Your task to perform on an android device: toggle javascript in the chrome app Image 0: 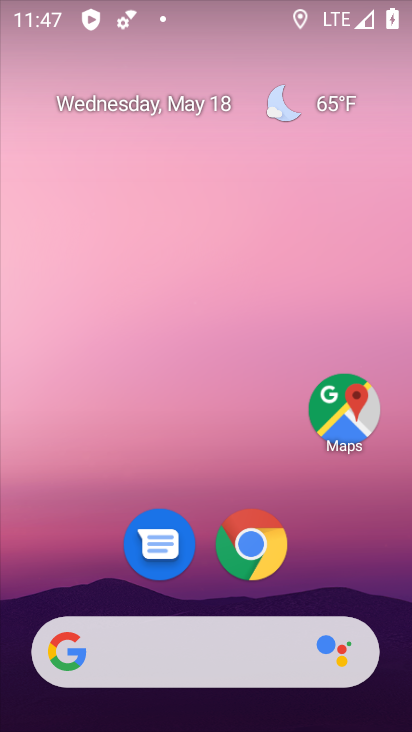
Step 0: drag from (385, 579) to (381, 265)
Your task to perform on an android device: toggle javascript in the chrome app Image 1: 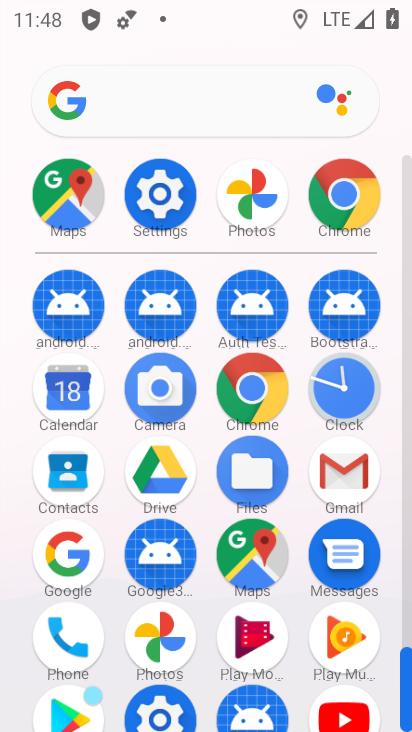
Step 1: click (273, 404)
Your task to perform on an android device: toggle javascript in the chrome app Image 2: 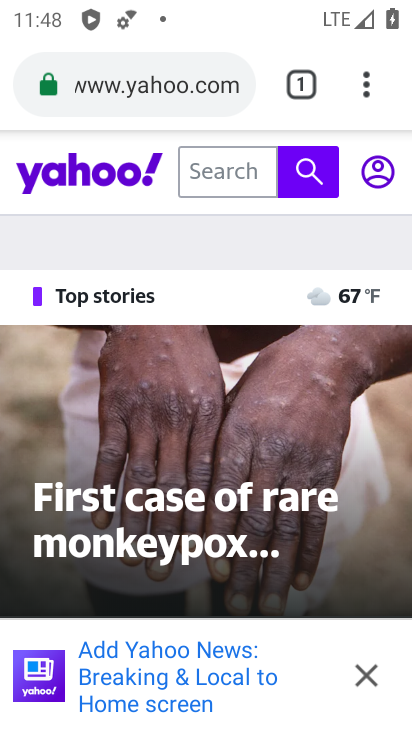
Step 2: click (366, 98)
Your task to perform on an android device: toggle javascript in the chrome app Image 3: 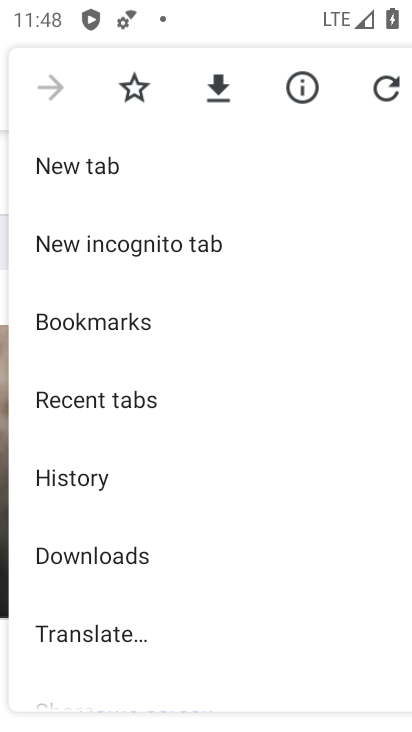
Step 3: drag from (265, 649) to (264, 563)
Your task to perform on an android device: toggle javascript in the chrome app Image 4: 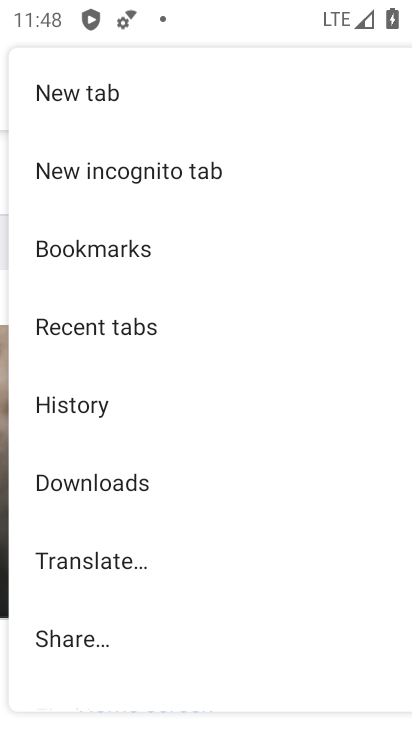
Step 4: drag from (259, 662) to (285, 522)
Your task to perform on an android device: toggle javascript in the chrome app Image 5: 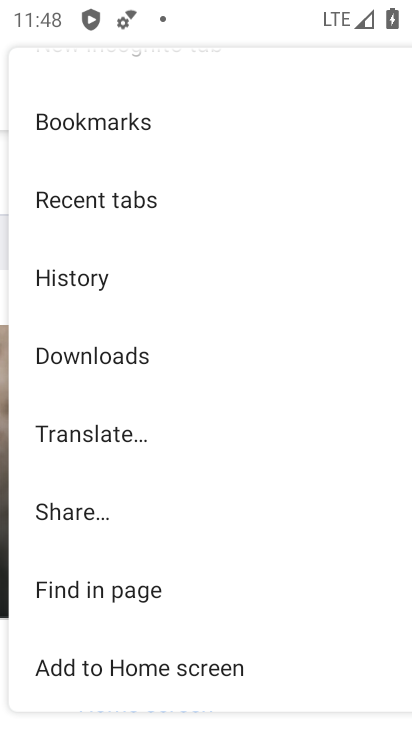
Step 5: drag from (295, 651) to (293, 553)
Your task to perform on an android device: toggle javascript in the chrome app Image 6: 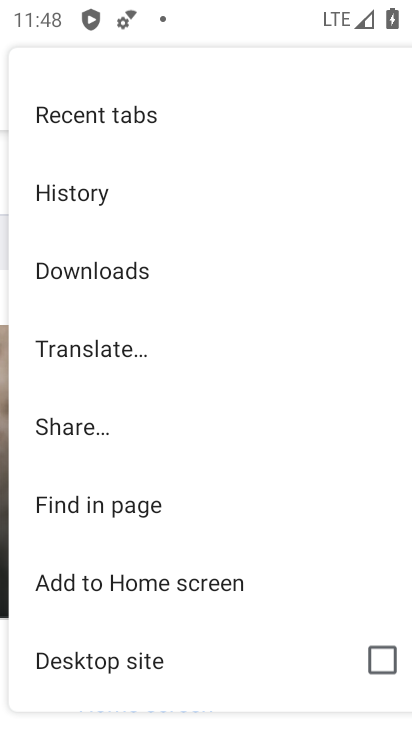
Step 6: drag from (301, 644) to (298, 590)
Your task to perform on an android device: toggle javascript in the chrome app Image 7: 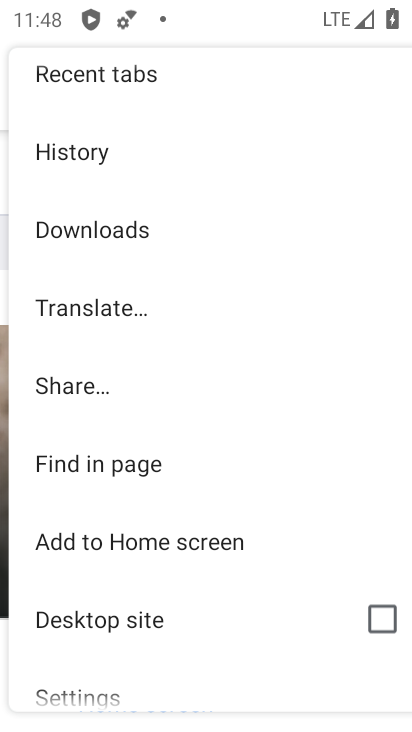
Step 7: drag from (291, 610) to (289, 526)
Your task to perform on an android device: toggle javascript in the chrome app Image 8: 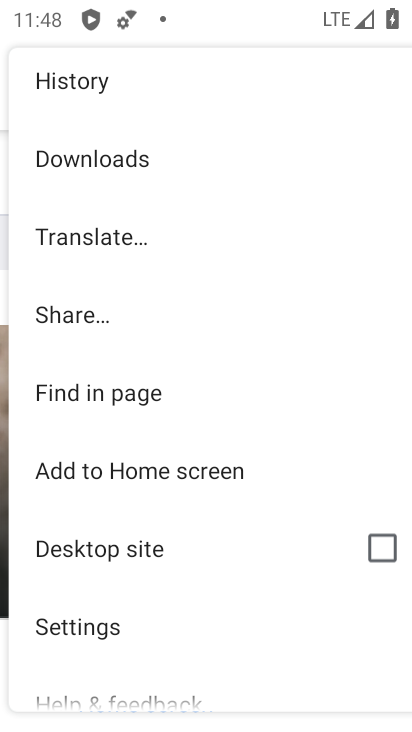
Step 8: click (187, 637)
Your task to perform on an android device: toggle javascript in the chrome app Image 9: 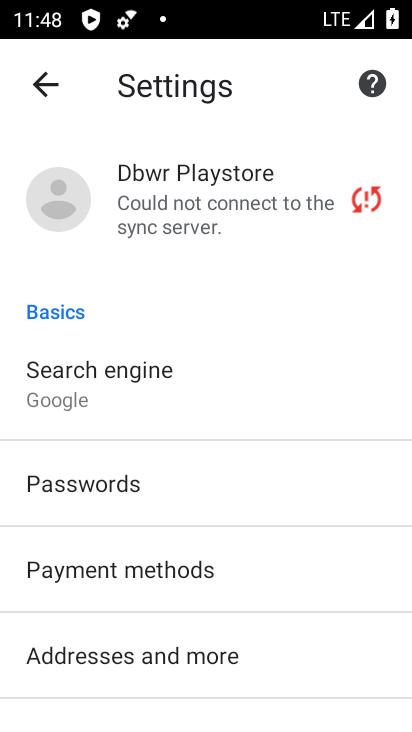
Step 9: drag from (270, 668) to (281, 534)
Your task to perform on an android device: toggle javascript in the chrome app Image 10: 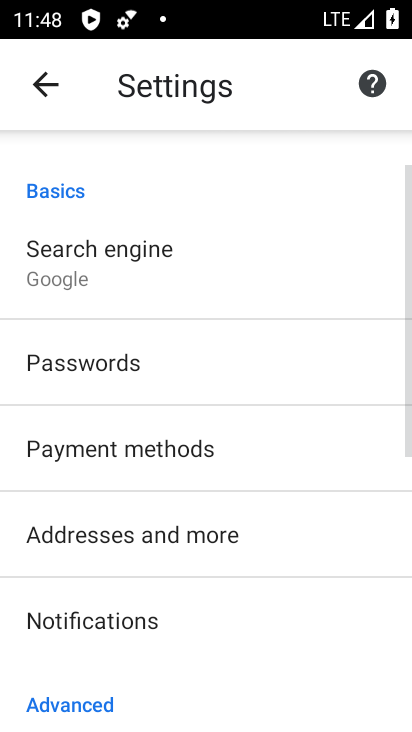
Step 10: drag from (303, 652) to (297, 541)
Your task to perform on an android device: toggle javascript in the chrome app Image 11: 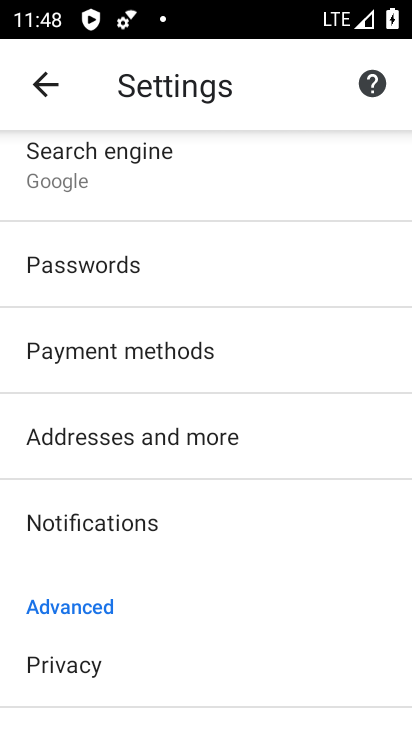
Step 11: drag from (300, 609) to (298, 518)
Your task to perform on an android device: toggle javascript in the chrome app Image 12: 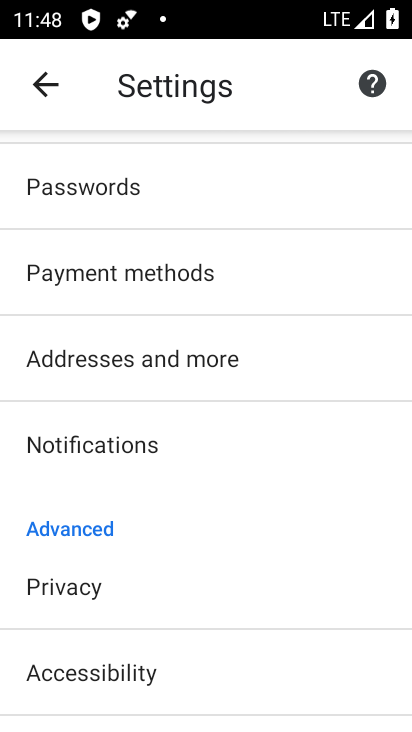
Step 12: drag from (285, 672) to (294, 558)
Your task to perform on an android device: toggle javascript in the chrome app Image 13: 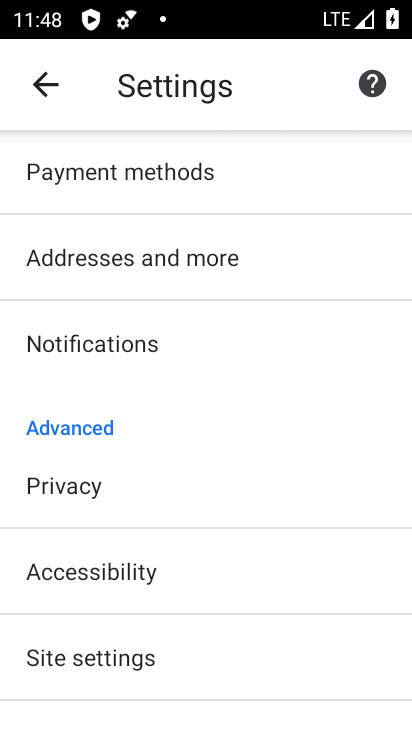
Step 13: click (237, 652)
Your task to perform on an android device: toggle javascript in the chrome app Image 14: 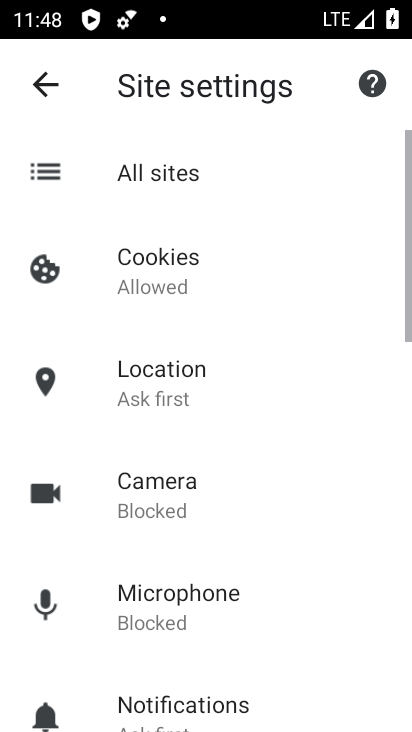
Step 14: drag from (236, 626) to (261, 521)
Your task to perform on an android device: toggle javascript in the chrome app Image 15: 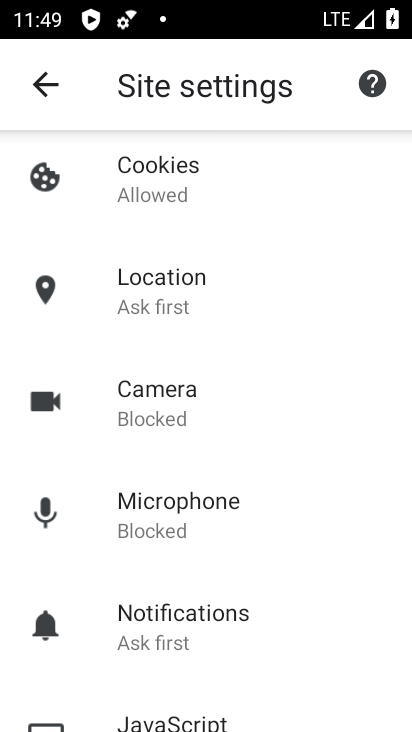
Step 15: drag from (291, 661) to (294, 585)
Your task to perform on an android device: toggle javascript in the chrome app Image 16: 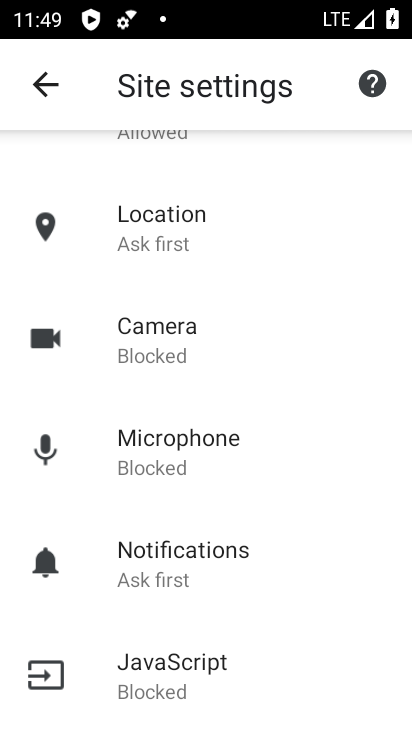
Step 16: click (291, 637)
Your task to perform on an android device: toggle javascript in the chrome app Image 17: 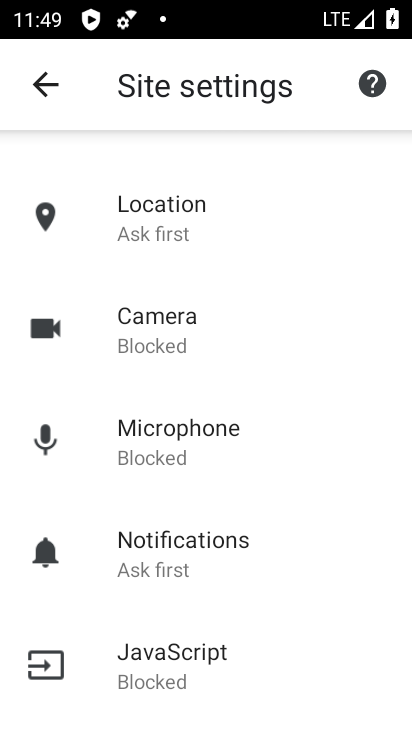
Step 17: click (247, 664)
Your task to perform on an android device: toggle javascript in the chrome app Image 18: 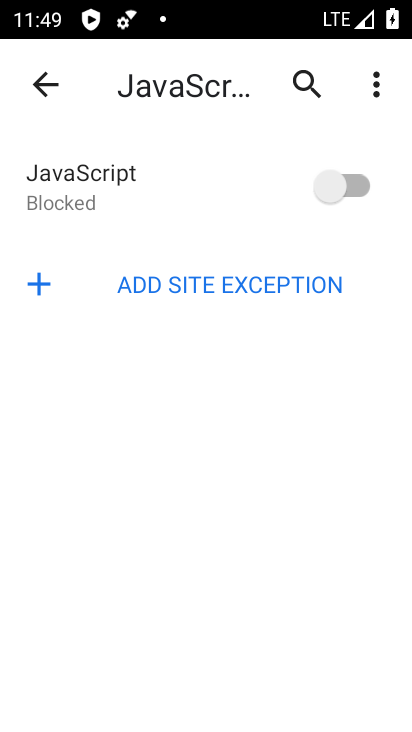
Step 18: click (345, 184)
Your task to perform on an android device: toggle javascript in the chrome app Image 19: 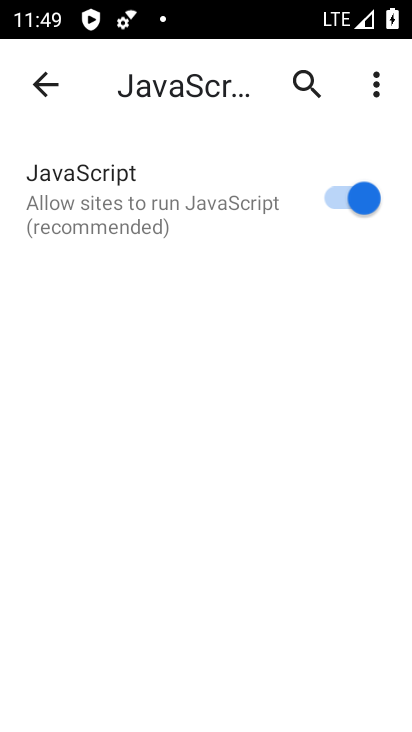
Step 19: task complete